Your task to perform on an android device: Open the Play Movies app and select the watchlist tab. Image 0: 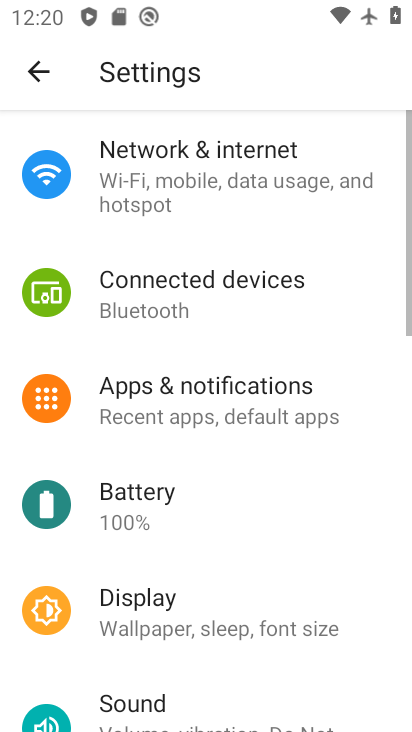
Step 0: press home button
Your task to perform on an android device: Open the Play Movies app and select the watchlist tab. Image 1: 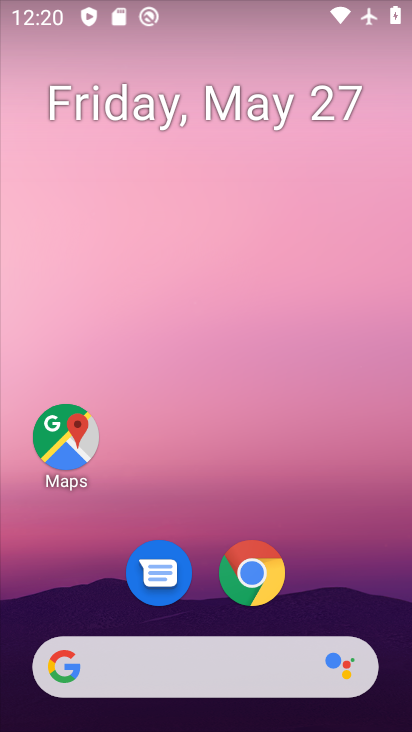
Step 1: drag from (338, 335) to (361, 167)
Your task to perform on an android device: Open the Play Movies app and select the watchlist tab. Image 2: 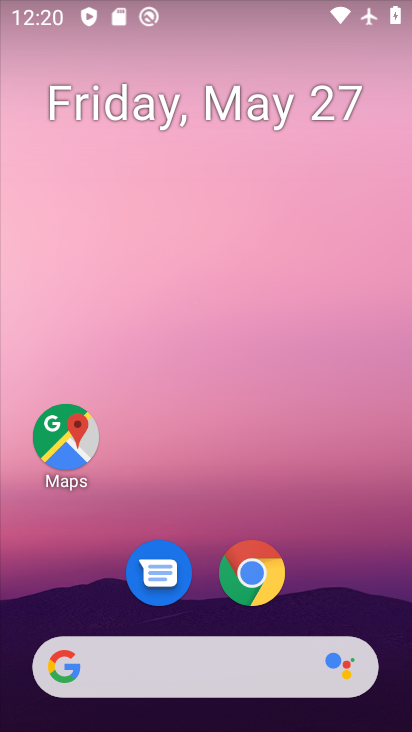
Step 2: drag from (341, 587) to (378, 206)
Your task to perform on an android device: Open the Play Movies app and select the watchlist tab. Image 3: 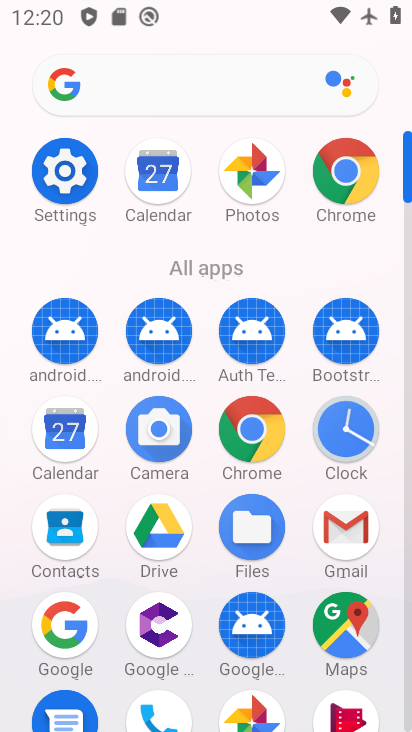
Step 3: click (332, 706)
Your task to perform on an android device: Open the Play Movies app and select the watchlist tab. Image 4: 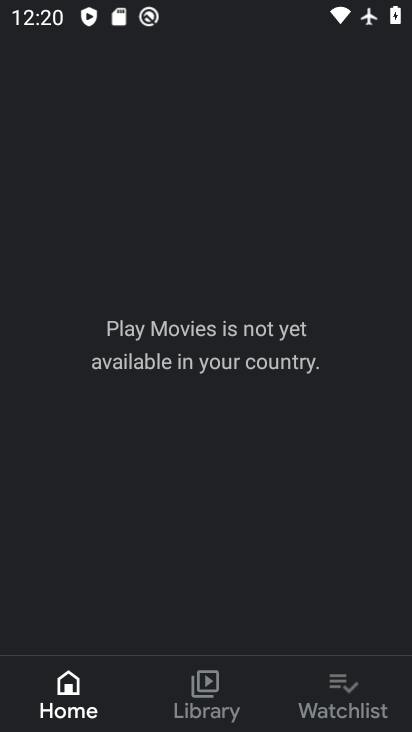
Step 4: click (335, 689)
Your task to perform on an android device: Open the Play Movies app and select the watchlist tab. Image 5: 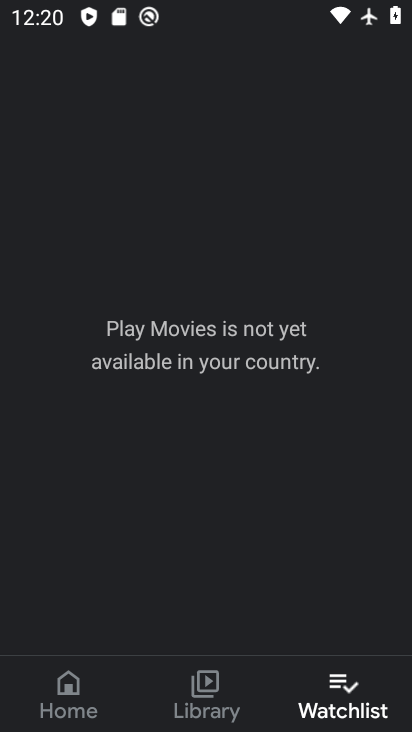
Step 5: task complete